Your task to perform on an android device: all mails in gmail Image 0: 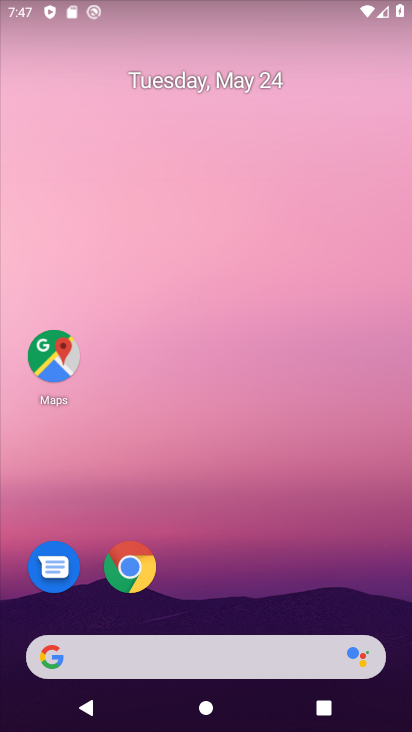
Step 0: drag from (289, 712) to (154, 104)
Your task to perform on an android device: all mails in gmail Image 1: 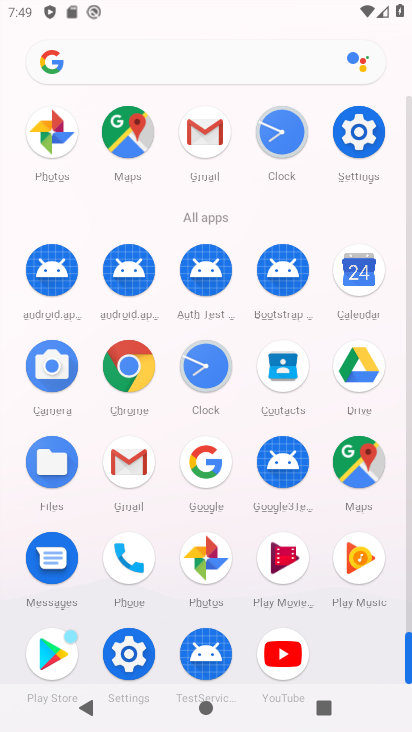
Step 1: click (140, 461)
Your task to perform on an android device: all mails in gmail Image 2: 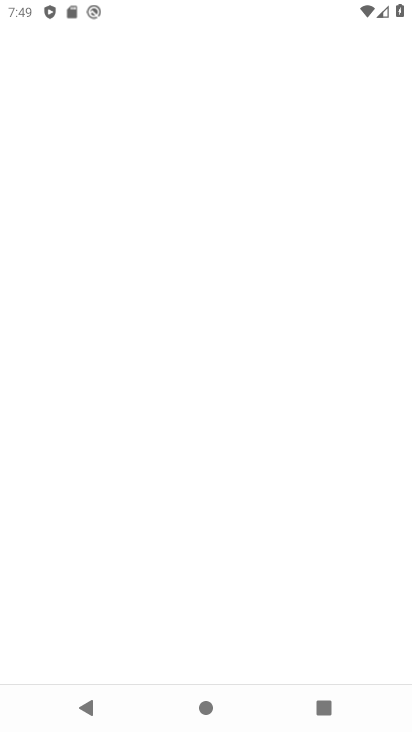
Step 2: click (142, 459)
Your task to perform on an android device: all mails in gmail Image 3: 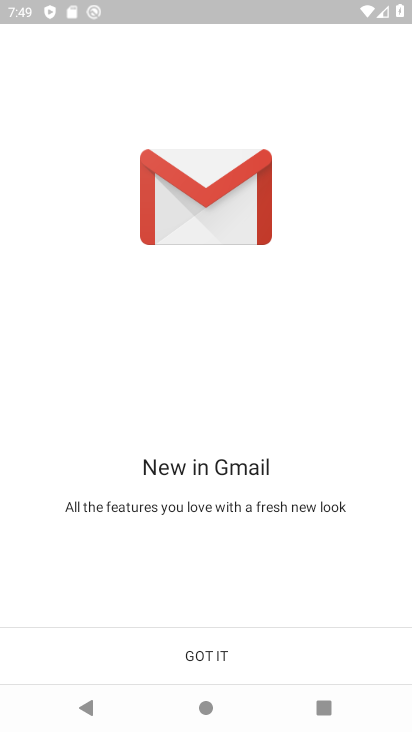
Step 3: click (207, 128)
Your task to perform on an android device: all mails in gmail Image 4: 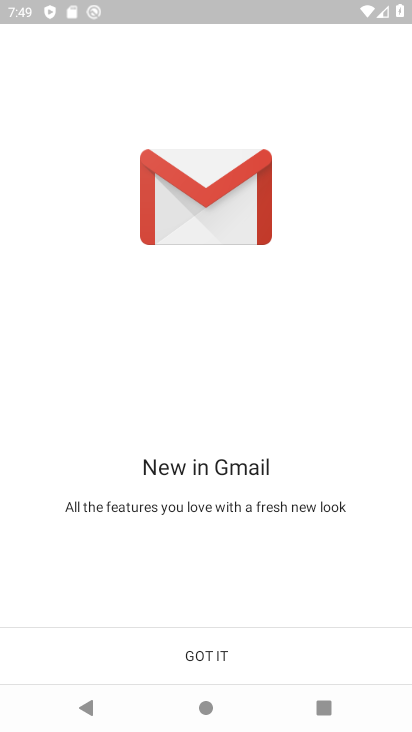
Step 4: click (219, 663)
Your task to perform on an android device: all mails in gmail Image 5: 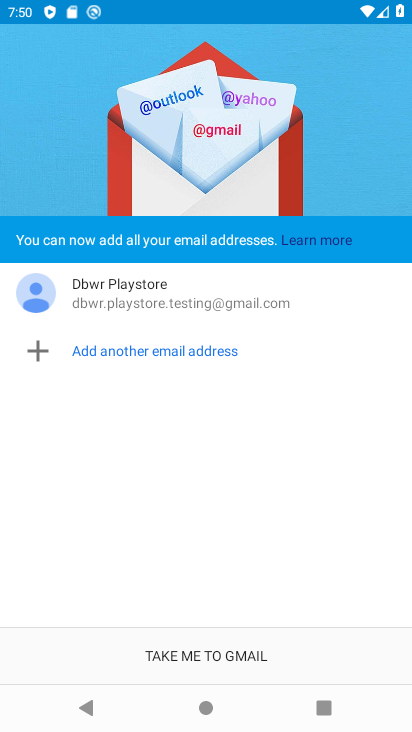
Step 5: click (196, 652)
Your task to perform on an android device: all mails in gmail Image 6: 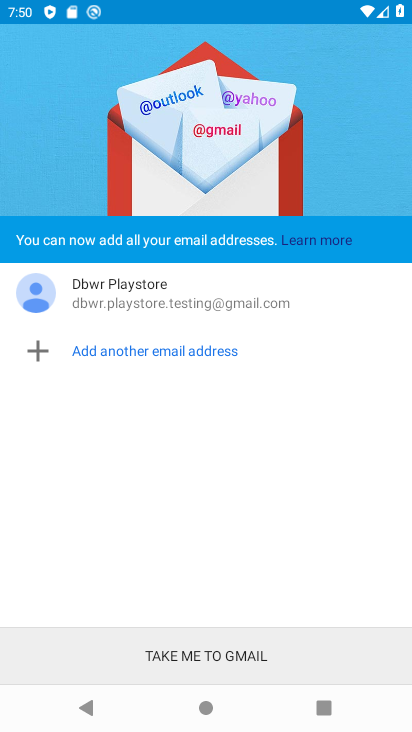
Step 6: click (196, 652)
Your task to perform on an android device: all mails in gmail Image 7: 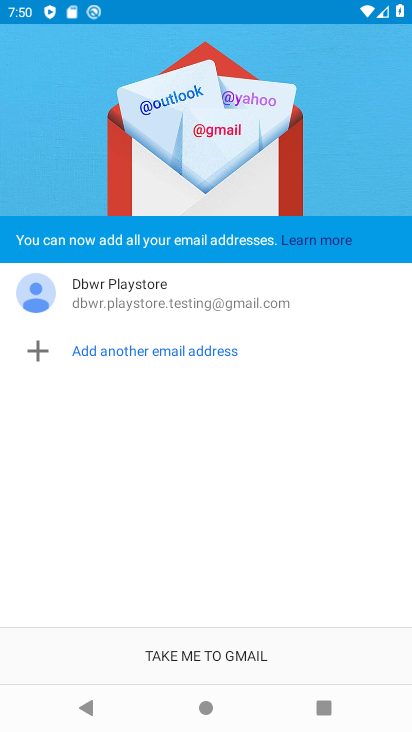
Step 7: click (196, 652)
Your task to perform on an android device: all mails in gmail Image 8: 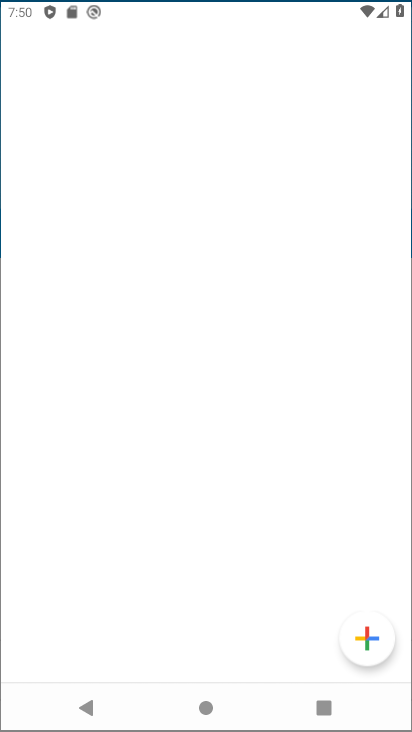
Step 8: click (205, 637)
Your task to perform on an android device: all mails in gmail Image 9: 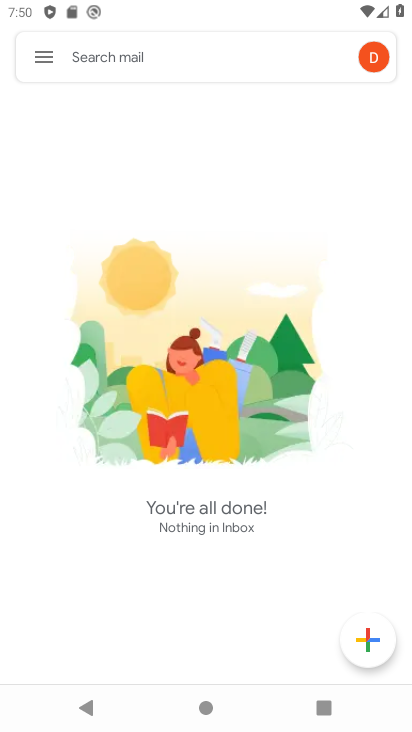
Step 9: click (44, 56)
Your task to perform on an android device: all mails in gmail Image 10: 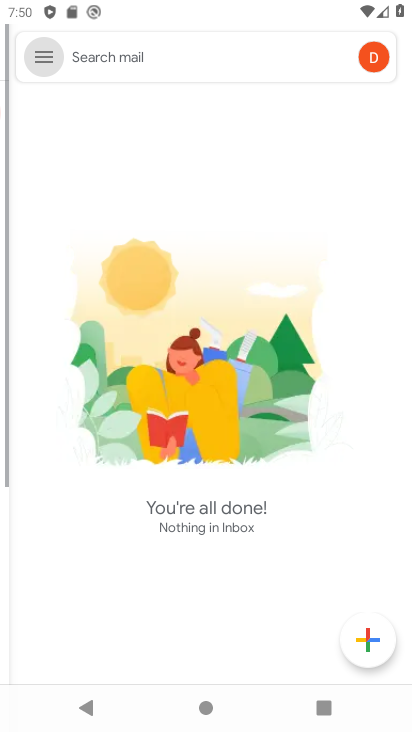
Step 10: click (44, 56)
Your task to perform on an android device: all mails in gmail Image 11: 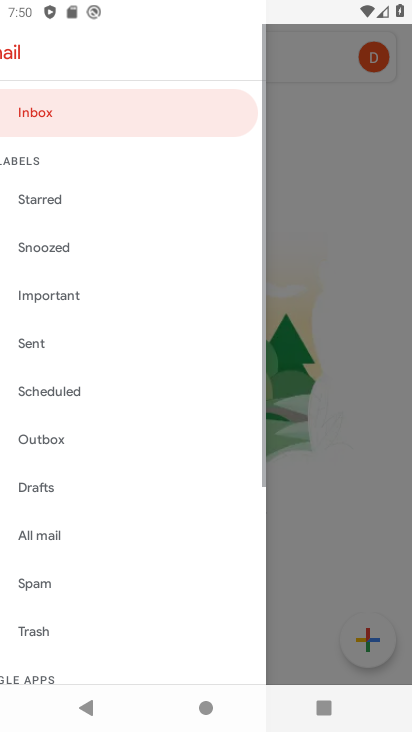
Step 11: click (45, 57)
Your task to perform on an android device: all mails in gmail Image 12: 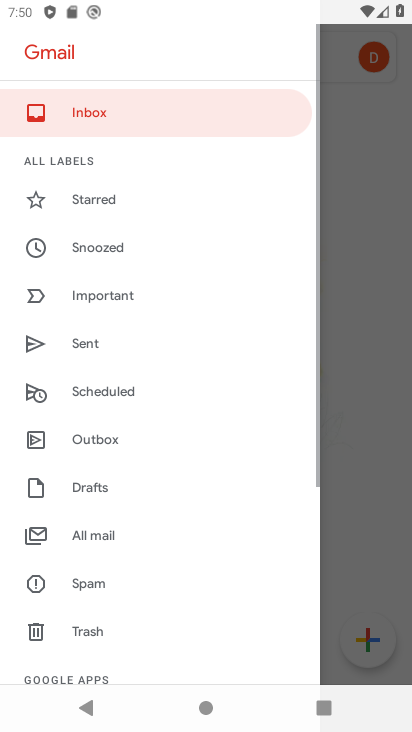
Step 12: click (46, 56)
Your task to perform on an android device: all mails in gmail Image 13: 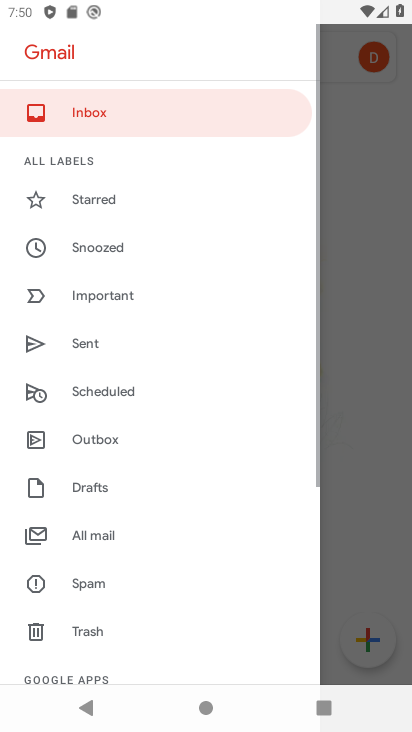
Step 13: click (48, 55)
Your task to perform on an android device: all mails in gmail Image 14: 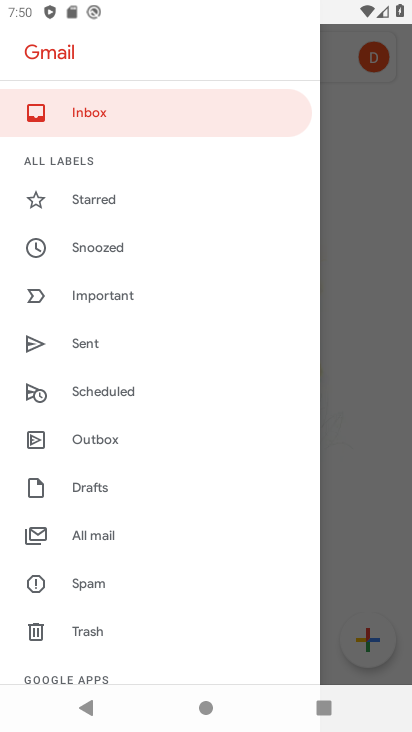
Step 14: click (94, 531)
Your task to perform on an android device: all mails in gmail Image 15: 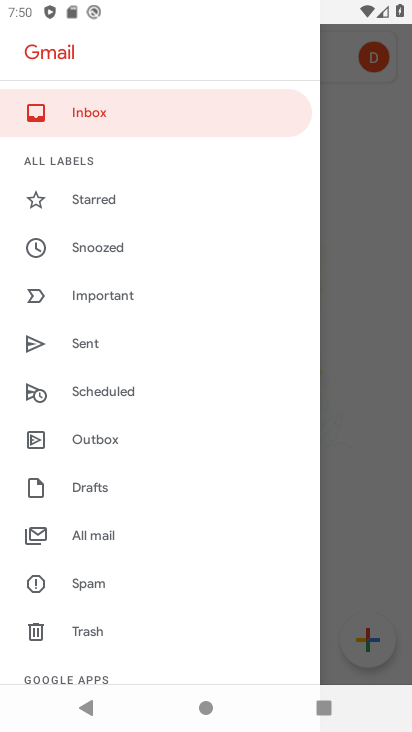
Step 15: click (94, 531)
Your task to perform on an android device: all mails in gmail Image 16: 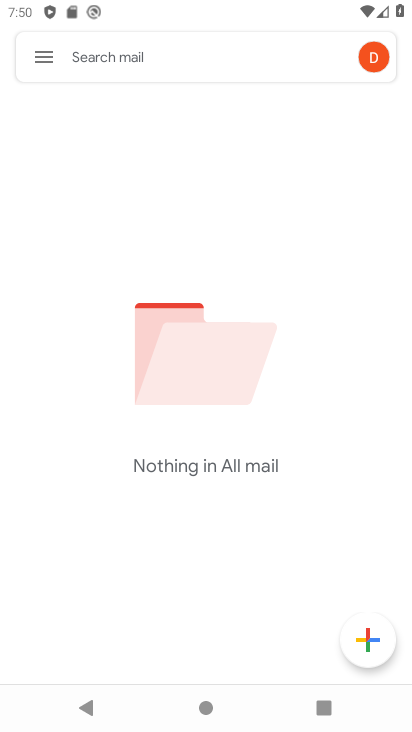
Step 16: task complete